Your task to perform on an android device: turn on wifi Image 0: 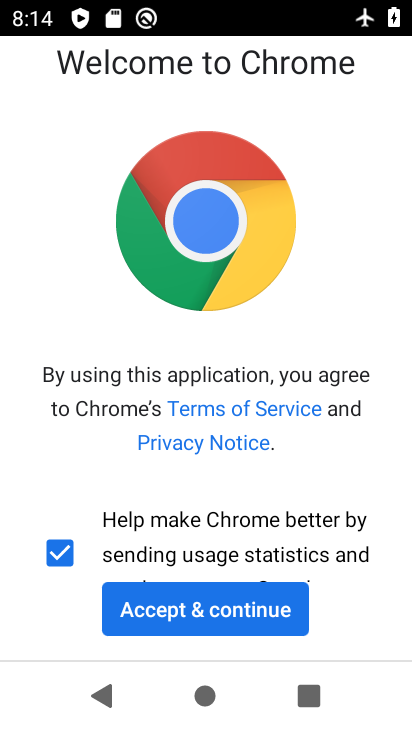
Step 0: press back button
Your task to perform on an android device: turn on wifi Image 1: 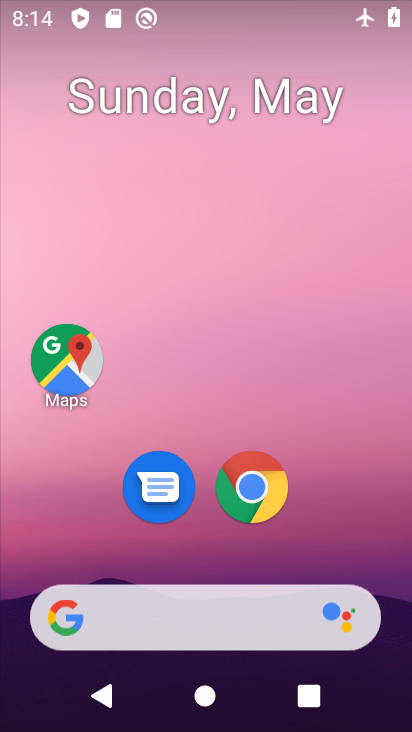
Step 1: drag from (114, 14) to (135, 509)
Your task to perform on an android device: turn on wifi Image 2: 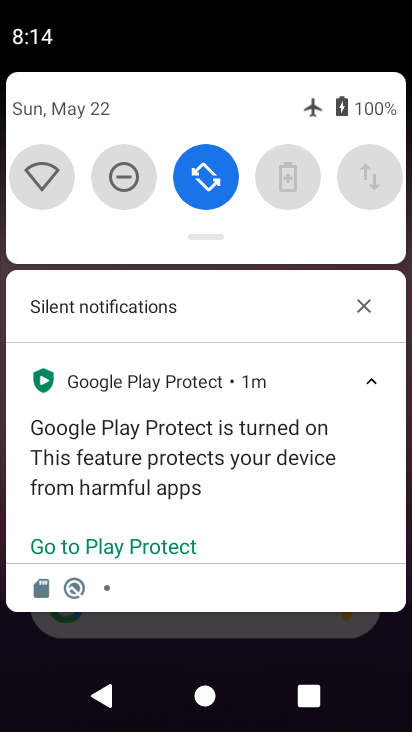
Step 2: click (42, 184)
Your task to perform on an android device: turn on wifi Image 3: 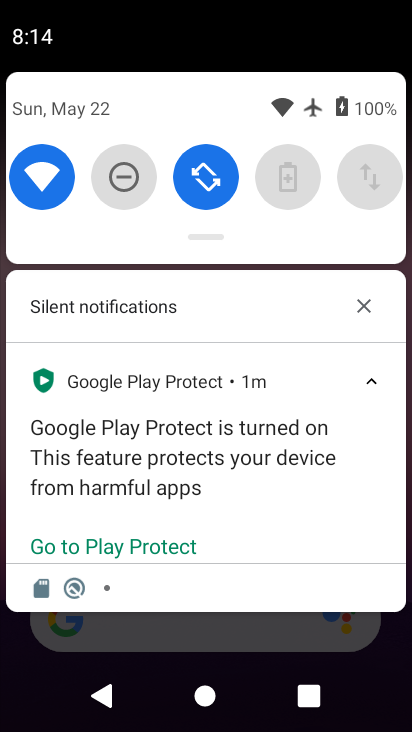
Step 3: task complete